Your task to perform on an android device: Open Google Maps and go to "Timeline" Image 0: 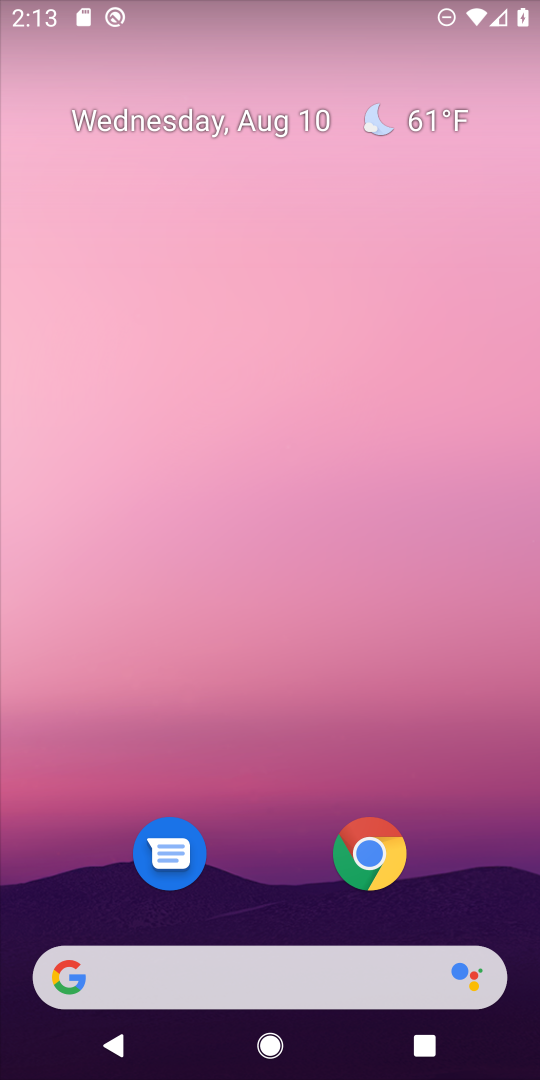
Step 0: drag from (246, 787) to (297, 338)
Your task to perform on an android device: Open Google Maps and go to "Timeline" Image 1: 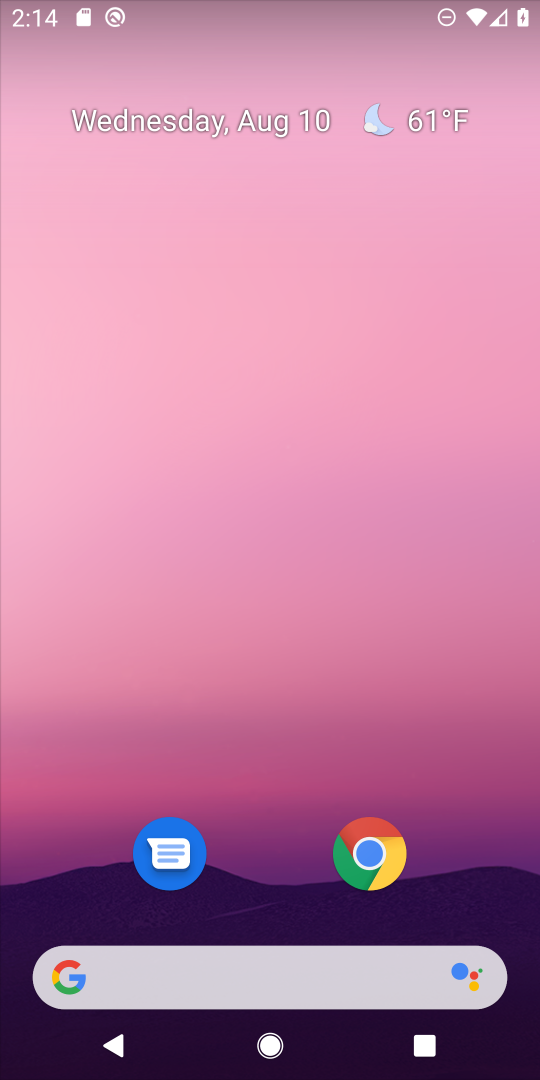
Step 1: drag from (258, 693) to (238, 34)
Your task to perform on an android device: Open Google Maps and go to "Timeline" Image 2: 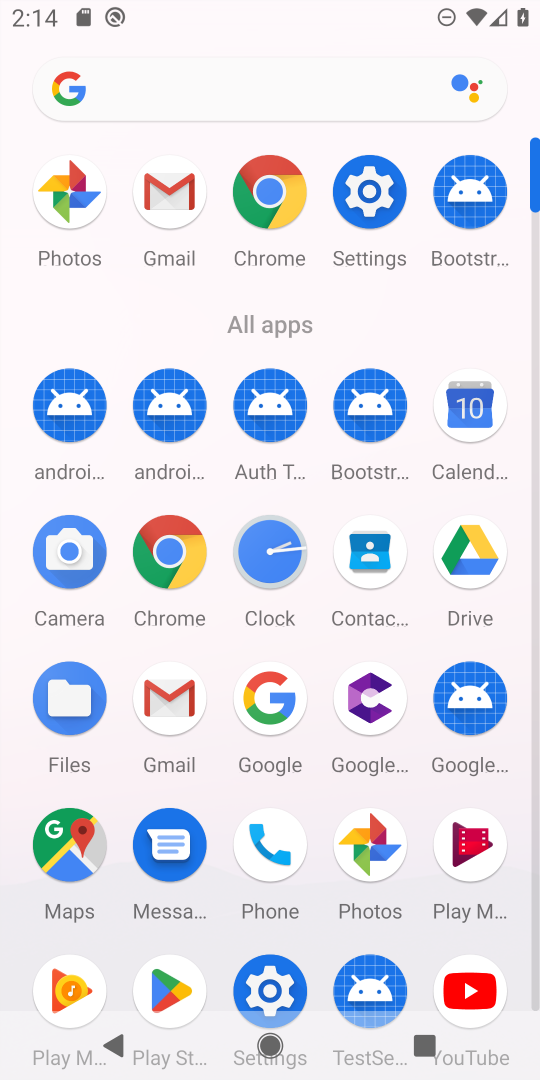
Step 2: click (169, 188)
Your task to perform on an android device: Open Google Maps and go to "Timeline" Image 3: 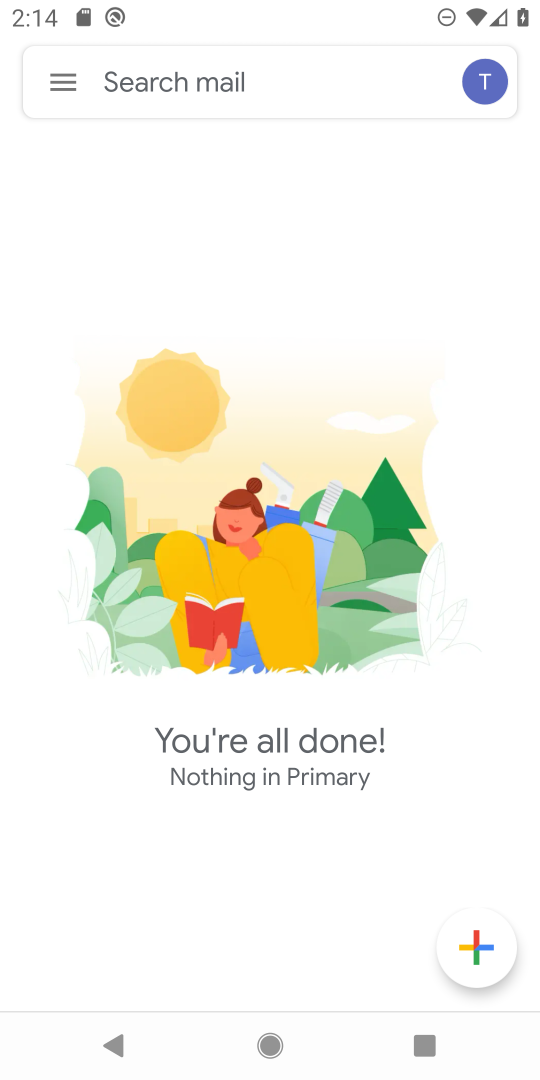
Step 3: task complete